Your task to perform on an android device: set default search engine in the chrome app Image 0: 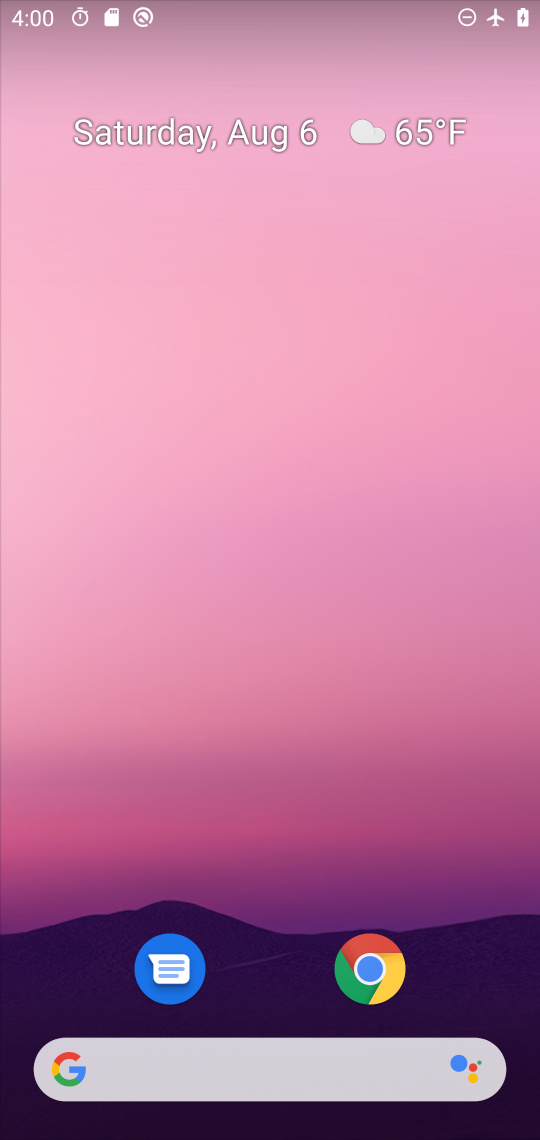
Step 0: press home button
Your task to perform on an android device: set default search engine in the chrome app Image 1: 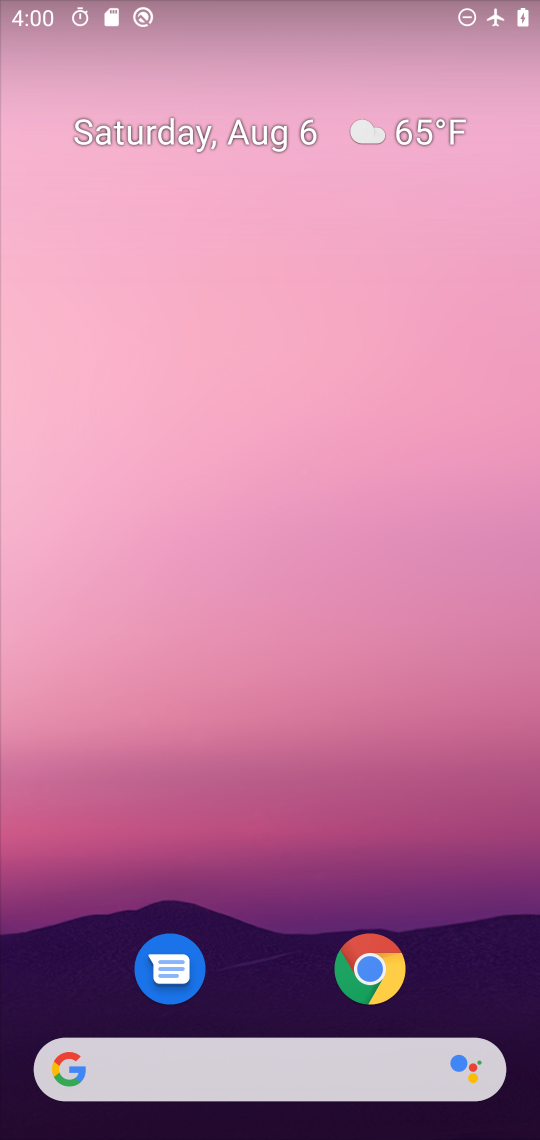
Step 1: drag from (260, 956) to (270, 63)
Your task to perform on an android device: set default search engine in the chrome app Image 2: 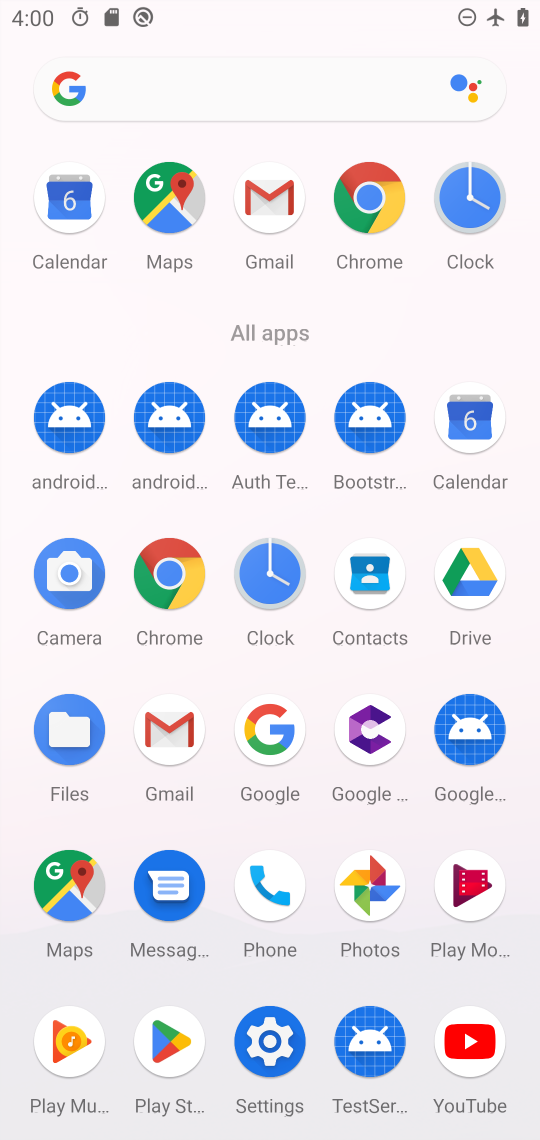
Step 2: click (377, 218)
Your task to perform on an android device: set default search engine in the chrome app Image 3: 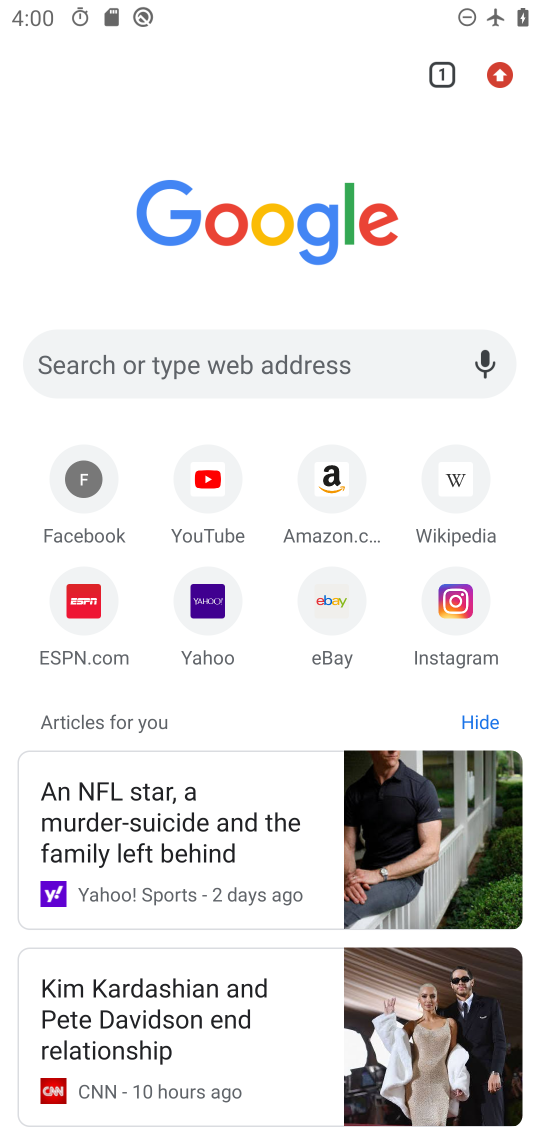
Step 3: drag from (516, 78) to (244, 702)
Your task to perform on an android device: set default search engine in the chrome app Image 4: 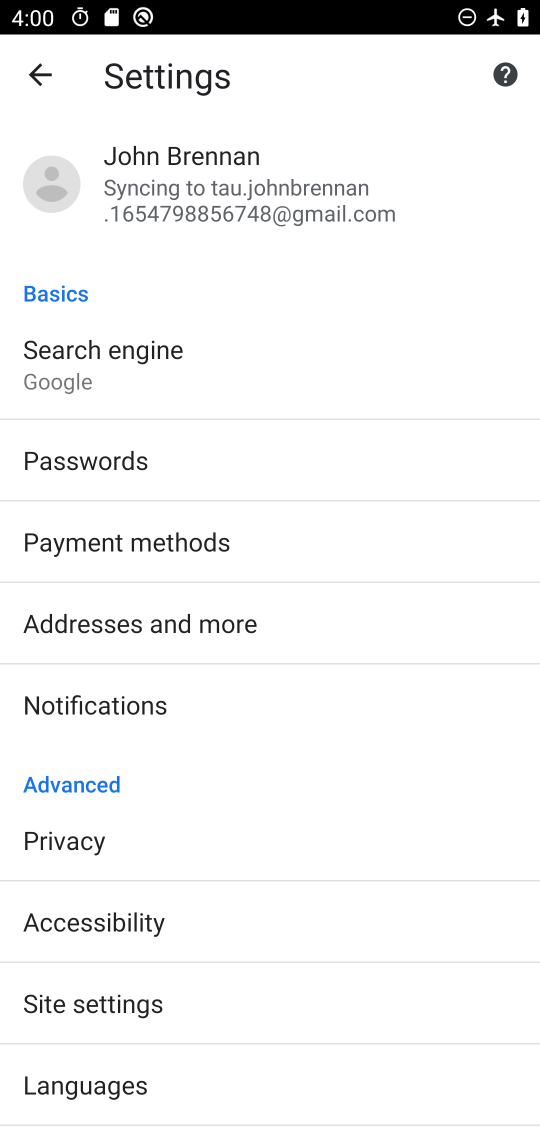
Step 4: click (106, 372)
Your task to perform on an android device: set default search engine in the chrome app Image 5: 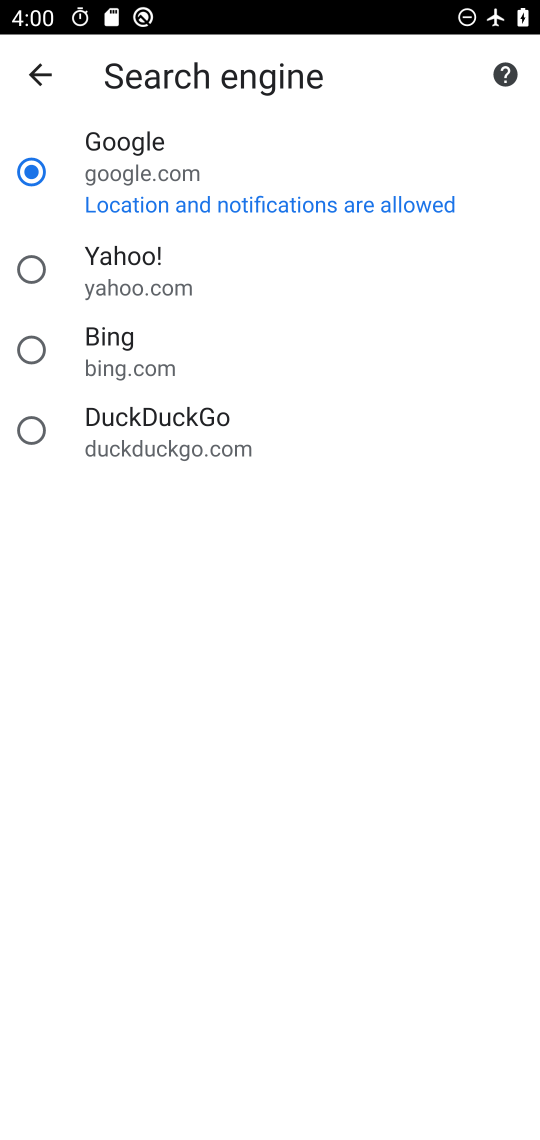
Step 5: task complete